Your task to perform on an android device: Go to eBay Image 0: 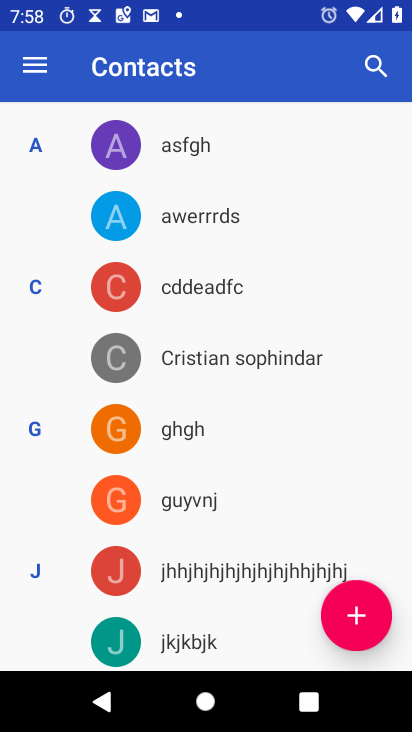
Step 0: press home button
Your task to perform on an android device: Go to eBay Image 1: 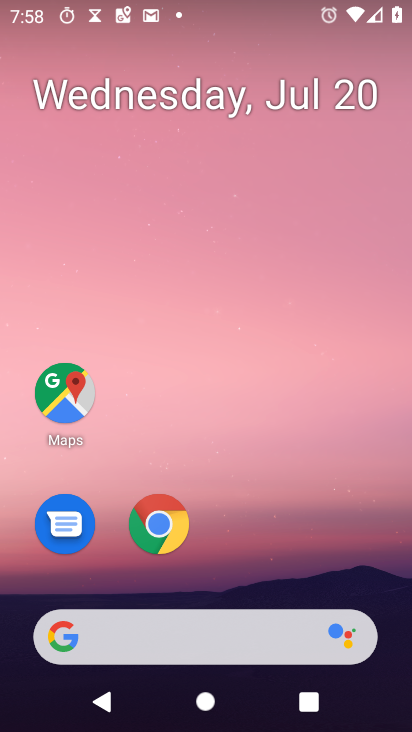
Step 1: click (169, 527)
Your task to perform on an android device: Go to eBay Image 2: 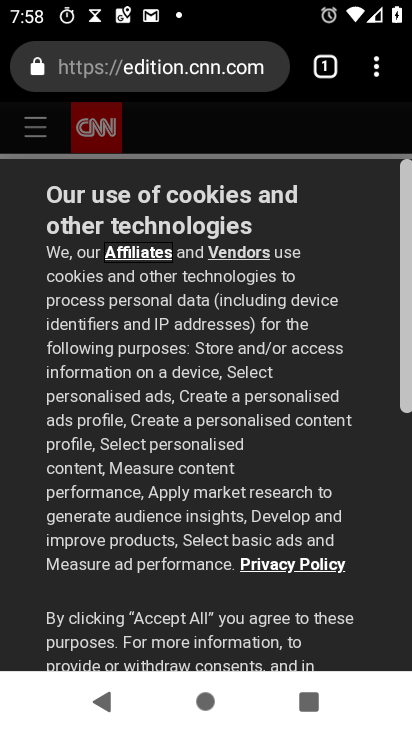
Step 2: drag from (374, 67) to (203, 128)
Your task to perform on an android device: Go to eBay Image 3: 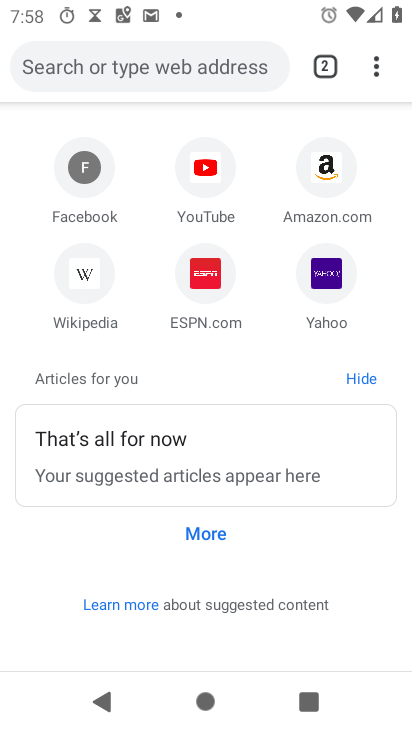
Step 3: click (193, 75)
Your task to perform on an android device: Go to eBay Image 4: 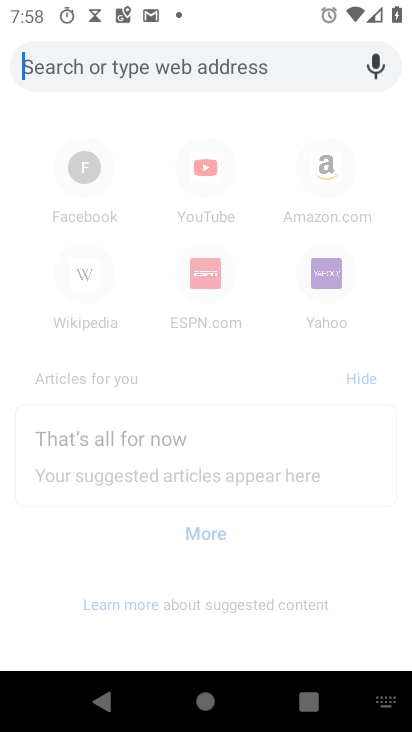
Step 4: type "ebay"
Your task to perform on an android device: Go to eBay Image 5: 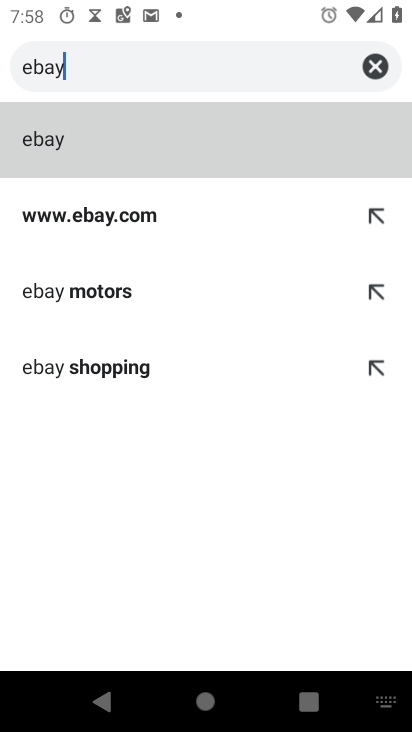
Step 5: click (74, 151)
Your task to perform on an android device: Go to eBay Image 6: 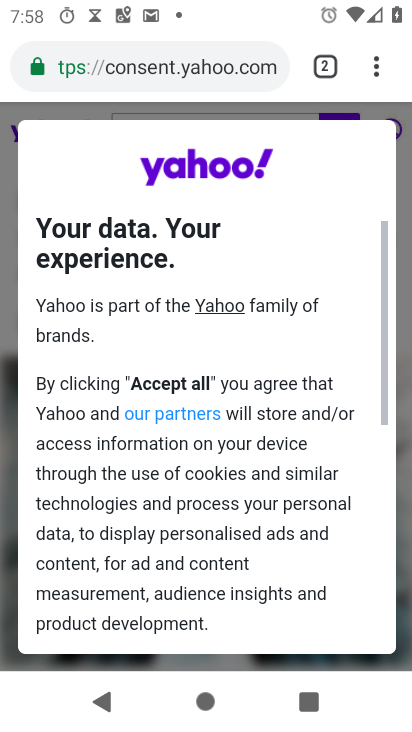
Step 6: drag from (309, 223) to (364, 95)
Your task to perform on an android device: Go to eBay Image 7: 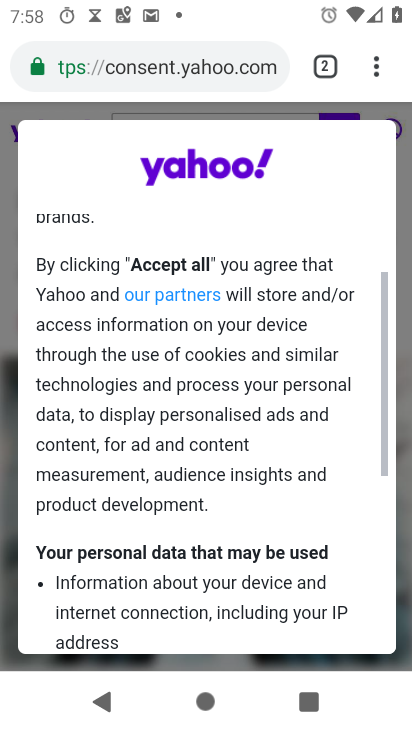
Step 7: drag from (211, 605) to (389, 114)
Your task to perform on an android device: Go to eBay Image 8: 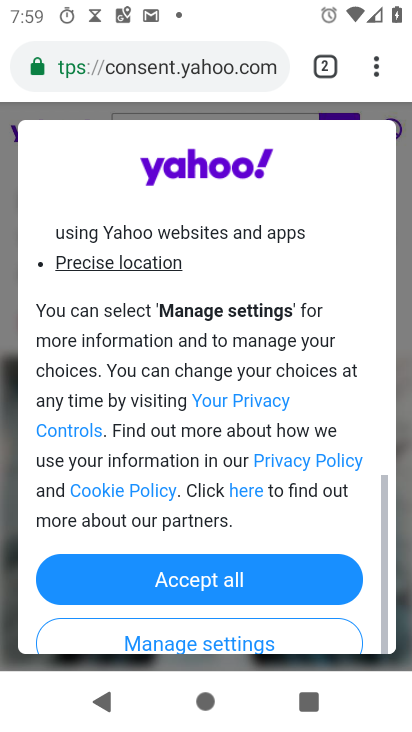
Step 8: click (193, 582)
Your task to perform on an android device: Go to eBay Image 9: 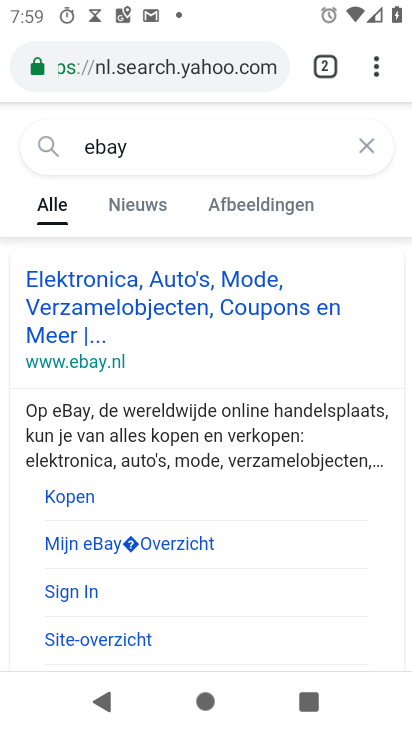
Step 9: click (226, 299)
Your task to perform on an android device: Go to eBay Image 10: 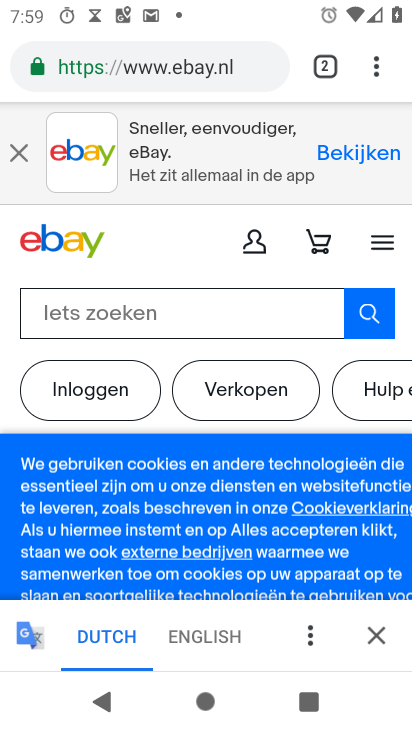
Step 10: click (205, 627)
Your task to perform on an android device: Go to eBay Image 11: 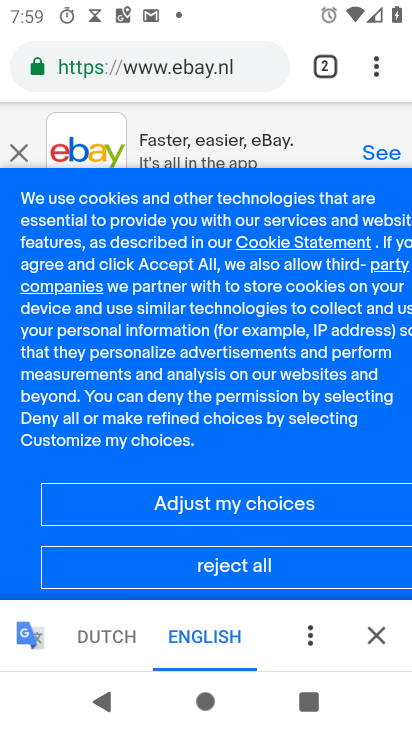
Step 11: task complete